Your task to perform on an android device: find photos in the google photos app Image 0: 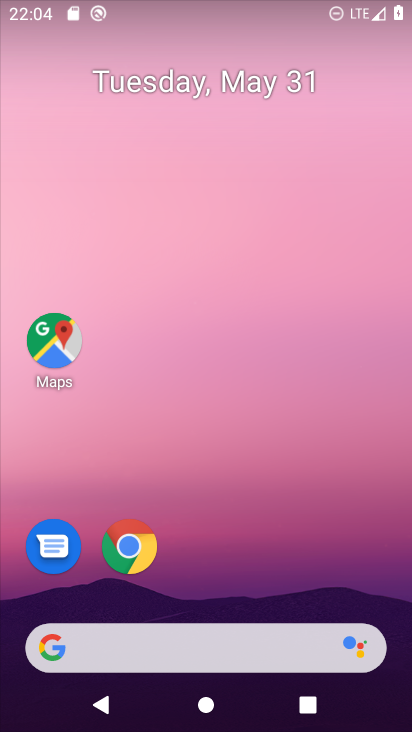
Step 0: drag from (401, 702) to (375, 248)
Your task to perform on an android device: find photos in the google photos app Image 1: 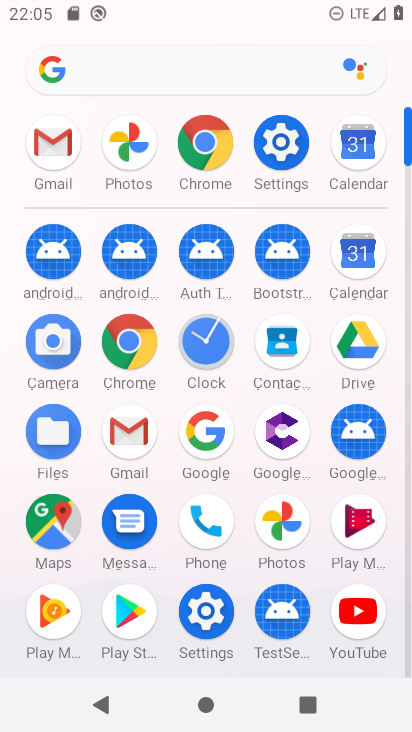
Step 1: click (263, 527)
Your task to perform on an android device: find photos in the google photos app Image 2: 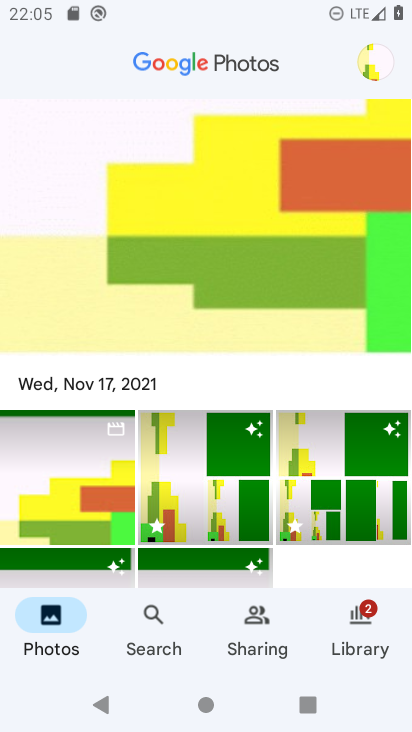
Step 2: click (122, 497)
Your task to perform on an android device: find photos in the google photos app Image 3: 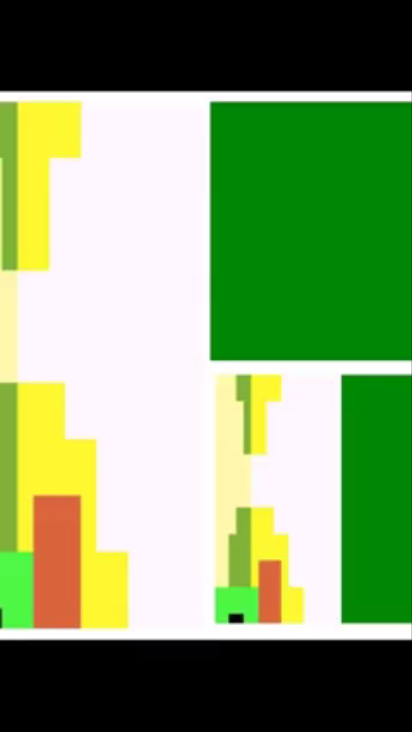
Step 3: task complete